Your task to perform on an android device: empty trash in google photos Image 0: 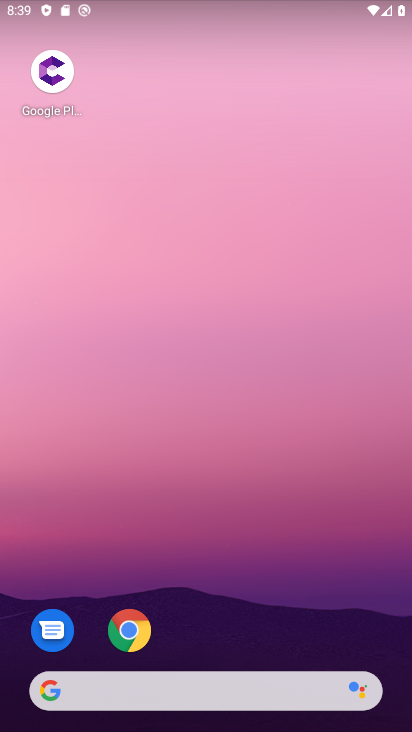
Step 0: drag from (367, 629) to (350, 72)
Your task to perform on an android device: empty trash in google photos Image 1: 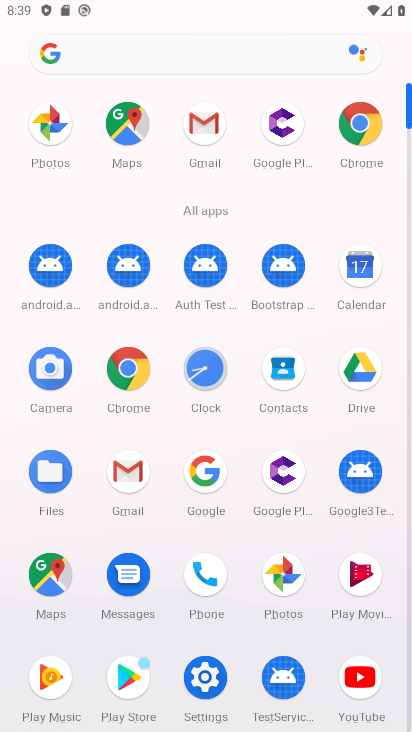
Step 1: drag from (255, 285) to (266, 43)
Your task to perform on an android device: empty trash in google photos Image 2: 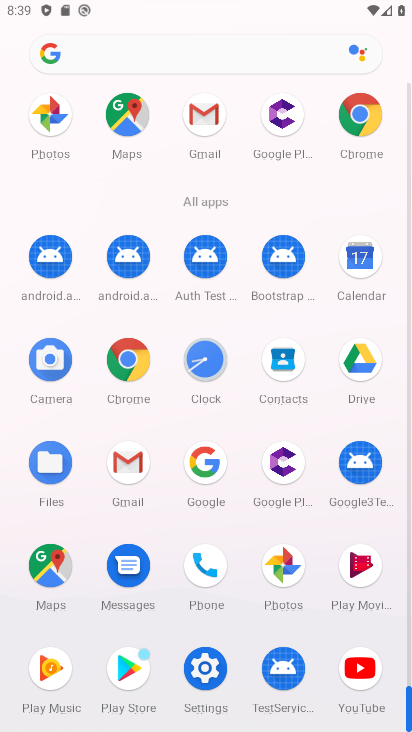
Step 2: click (284, 570)
Your task to perform on an android device: empty trash in google photos Image 3: 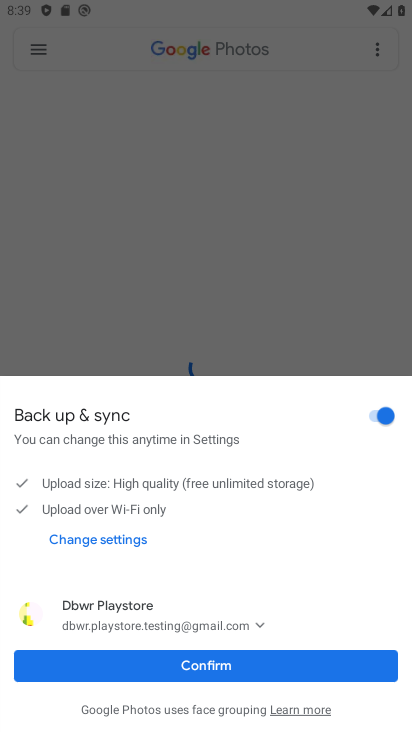
Step 3: click (282, 669)
Your task to perform on an android device: empty trash in google photos Image 4: 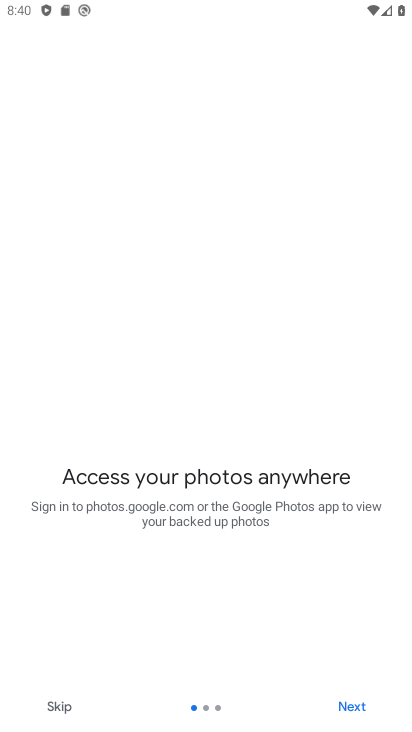
Step 4: click (343, 711)
Your task to perform on an android device: empty trash in google photos Image 5: 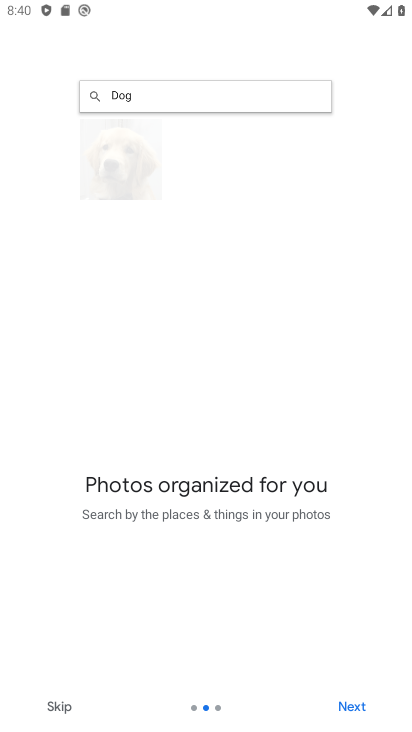
Step 5: click (350, 708)
Your task to perform on an android device: empty trash in google photos Image 6: 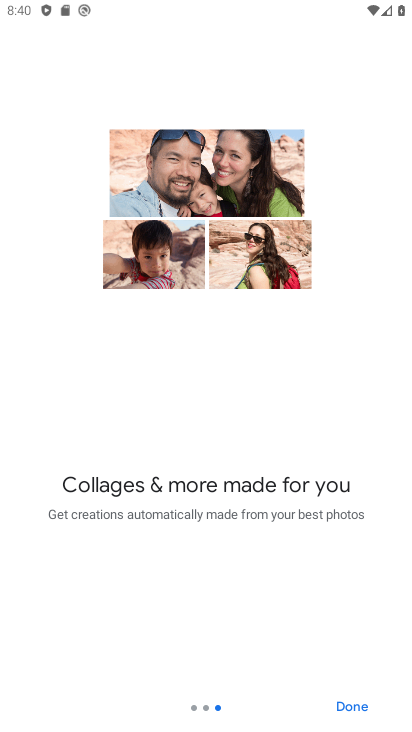
Step 6: click (350, 708)
Your task to perform on an android device: empty trash in google photos Image 7: 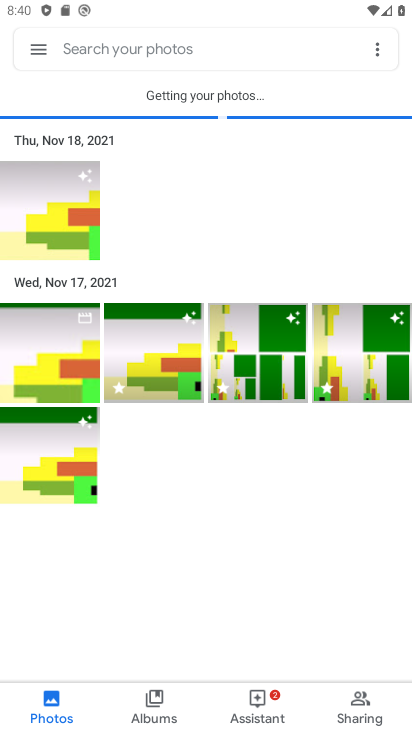
Step 7: click (37, 52)
Your task to perform on an android device: empty trash in google photos Image 8: 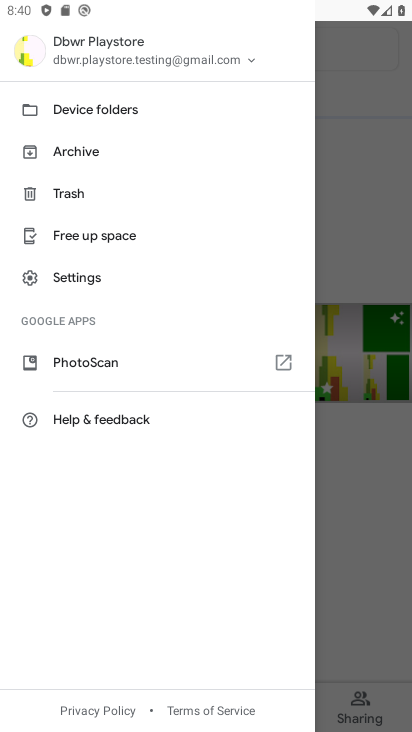
Step 8: click (118, 199)
Your task to perform on an android device: empty trash in google photos Image 9: 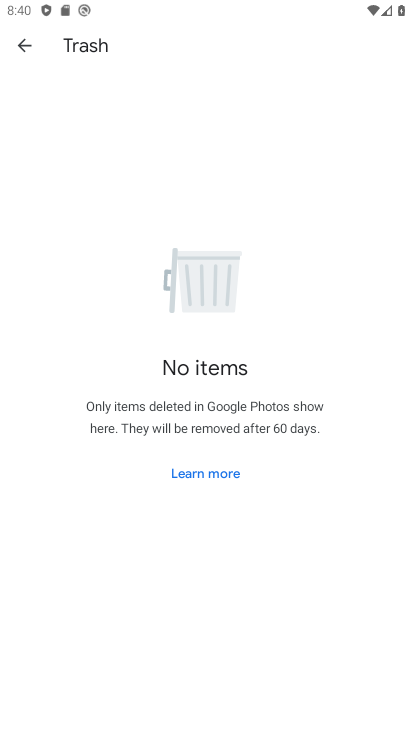
Step 9: task complete